Your task to perform on an android device: turn off translation in the chrome app Image 0: 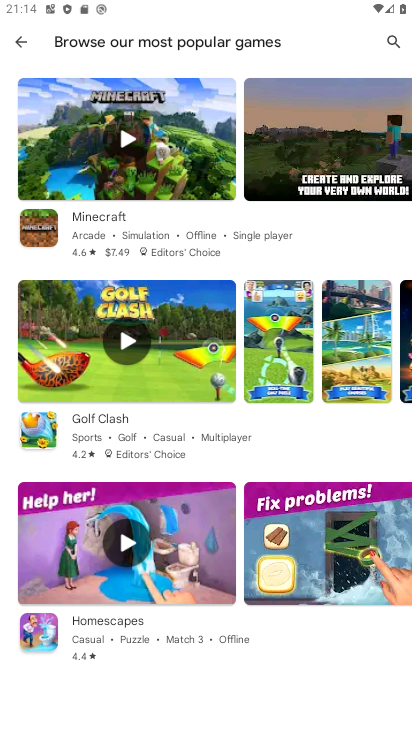
Step 0: press back button
Your task to perform on an android device: turn off translation in the chrome app Image 1: 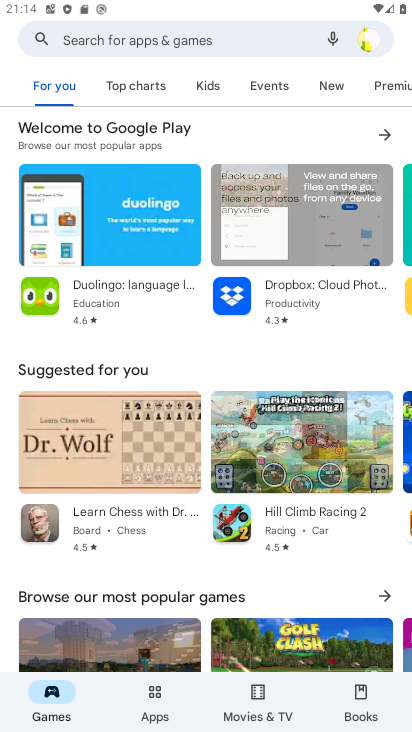
Step 1: press back button
Your task to perform on an android device: turn off translation in the chrome app Image 2: 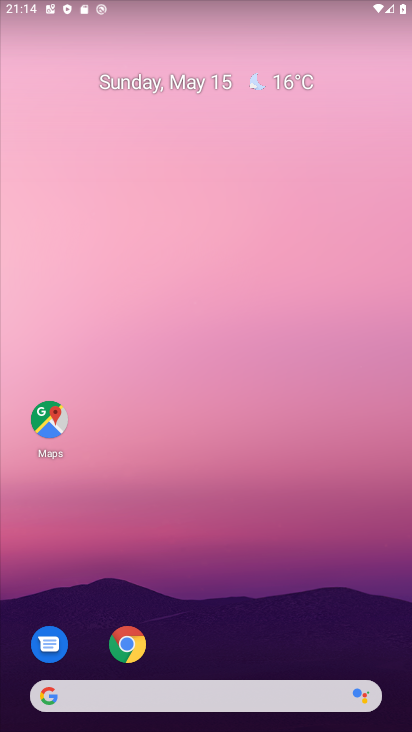
Step 2: click (126, 634)
Your task to perform on an android device: turn off translation in the chrome app Image 3: 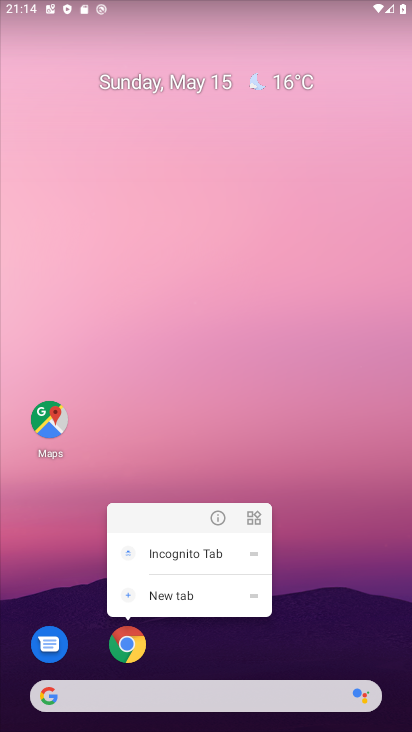
Step 3: click (133, 634)
Your task to perform on an android device: turn off translation in the chrome app Image 4: 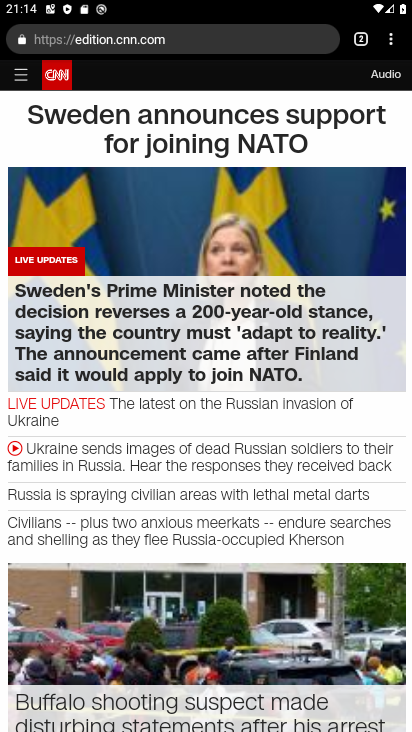
Step 4: drag from (392, 37) to (266, 437)
Your task to perform on an android device: turn off translation in the chrome app Image 5: 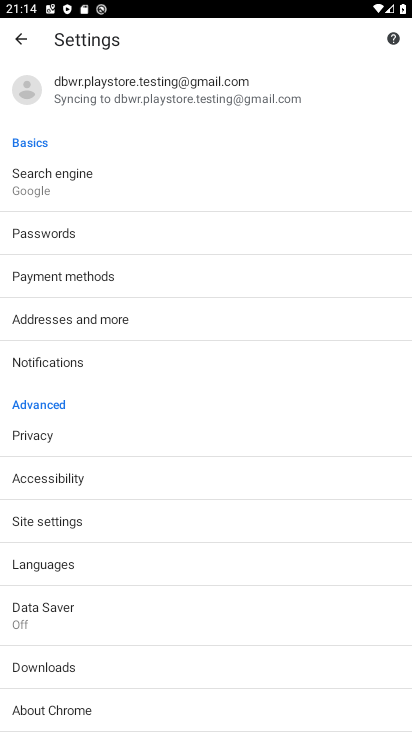
Step 5: click (57, 565)
Your task to perform on an android device: turn off translation in the chrome app Image 6: 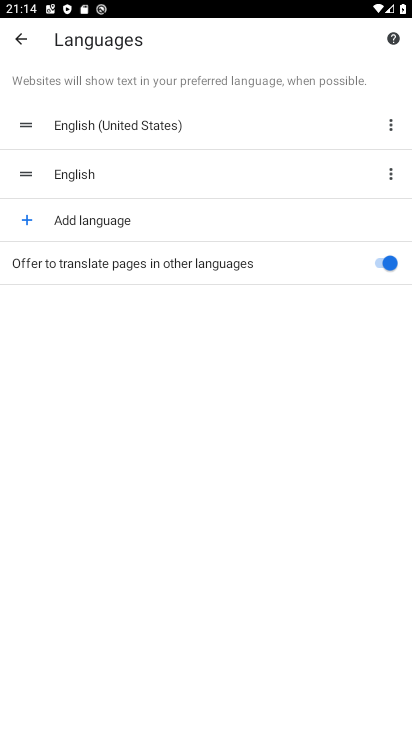
Step 6: click (395, 258)
Your task to perform on an android device: turn off translation in the chrome app Image 7: 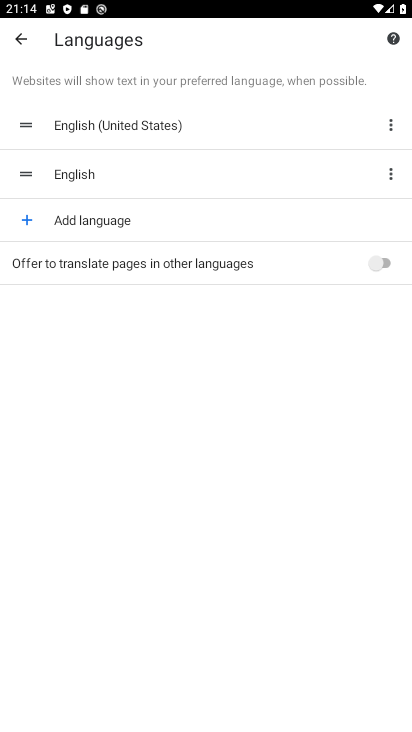
Step 7: task complete